Your task to perform on an android device: set default search engine in the chrome app Image 0: 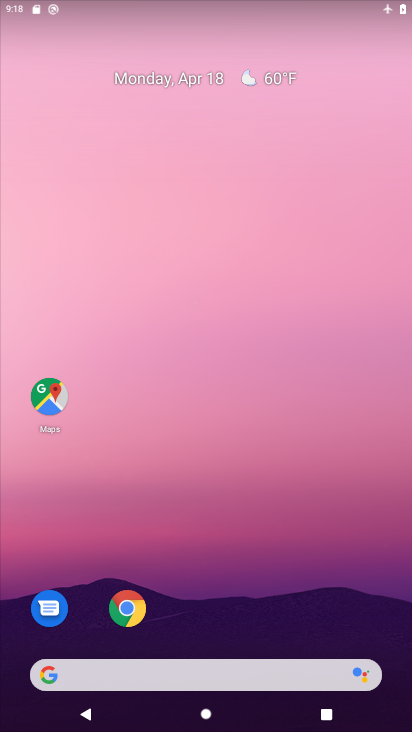
Step 0: drag from (347, 362) to (348, 67)
Your task to perform on an android device: set default search engine in the chrome app Image 1: 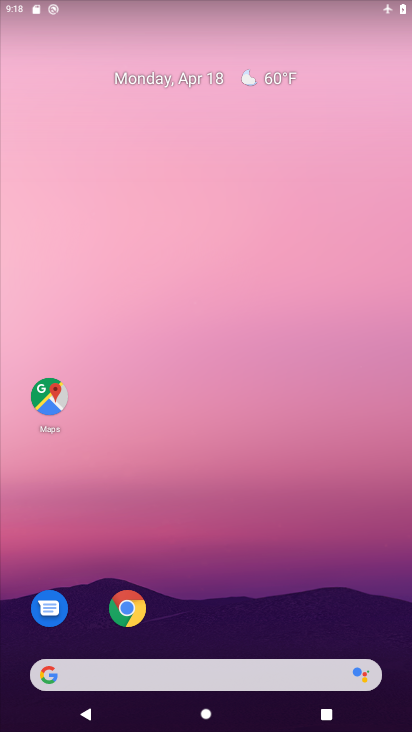
Step 1: click (131, 603)
Your task to perform on an android device: set default search engine in the chrome app Image 2: 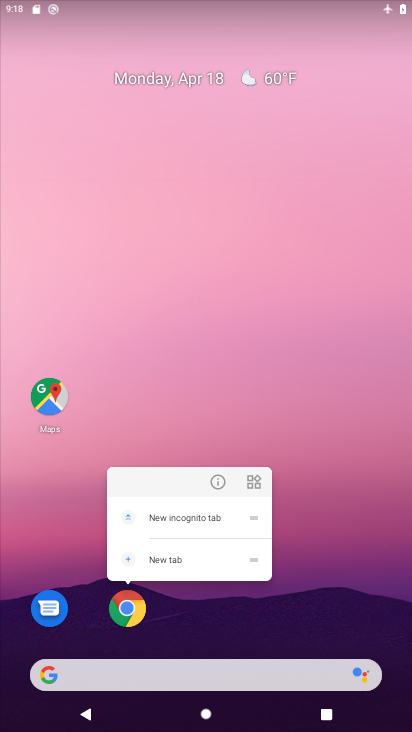
Step 2: click (135, 612)
Your task to perform on an android device: set default search engine in the chrome app Image 3: 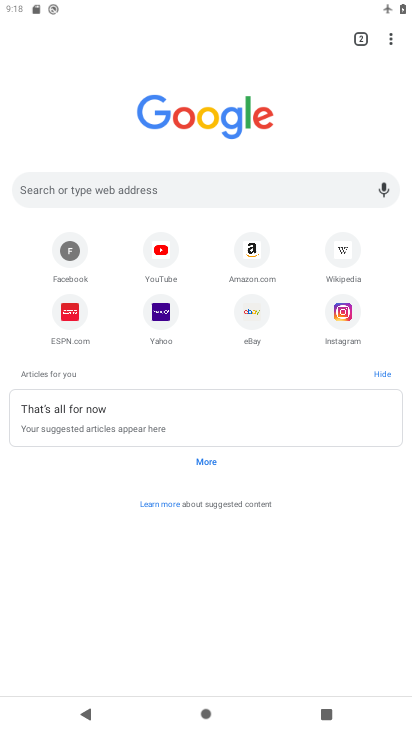
Step 3: click (395, 38)
Your task to perform on an android device: set default search engine in the chrome app Image 4: 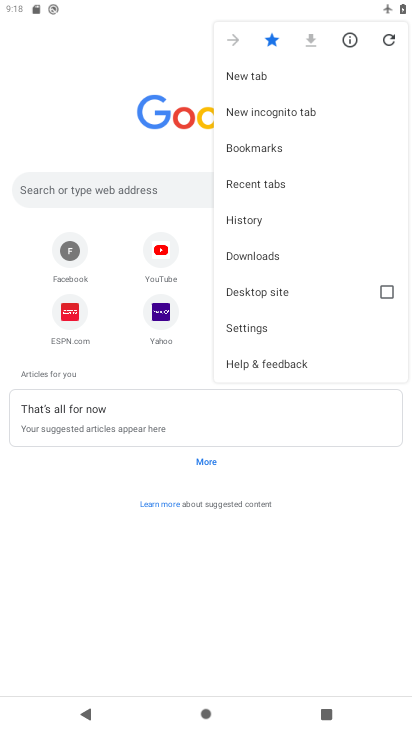
Step 4: click (267, 332)
Your task to perform on an android device: set default search engine in the chrome app Image 5: 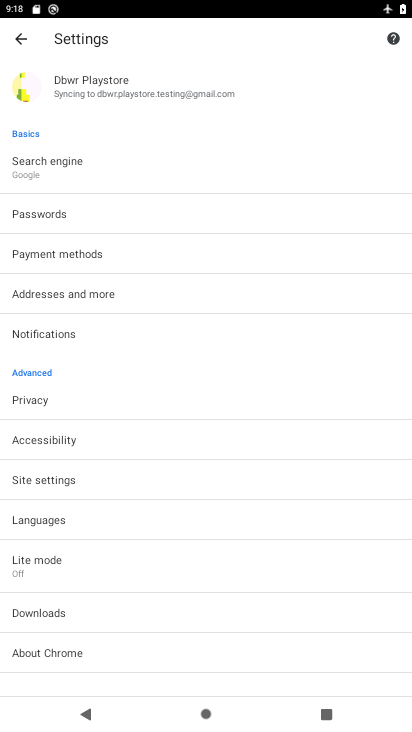
Step 5: click (38, 158)
Your task to perform on an android device: set default search engine in the chrome app Image 6: 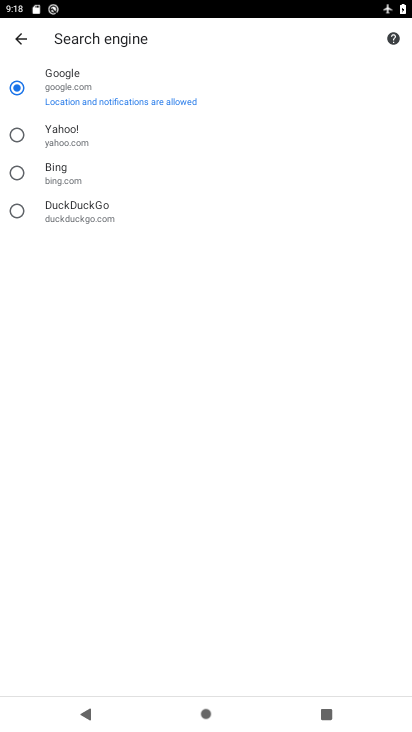
Step 6: click (41, 138)
Your task to perform on an android device: set default search engine in the chrome app Image 7: 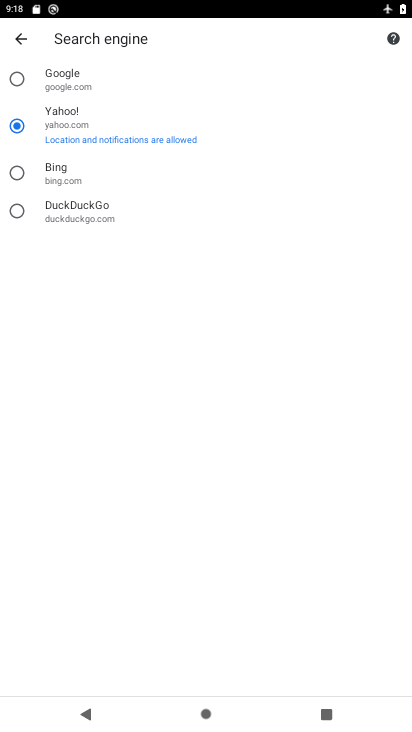
Step 7: task complete